Your task to perform on an android device: choose inbox layout in the gmail app Image 0: 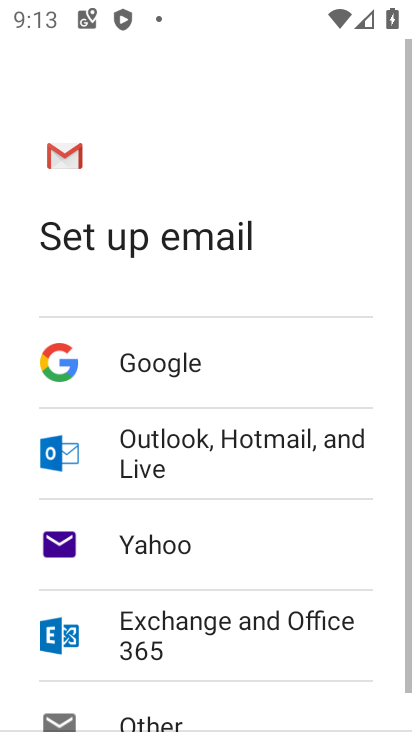
Step 0: press home button
Your task to perform on an android device: choose inbox layout in the gmail app Image 1: 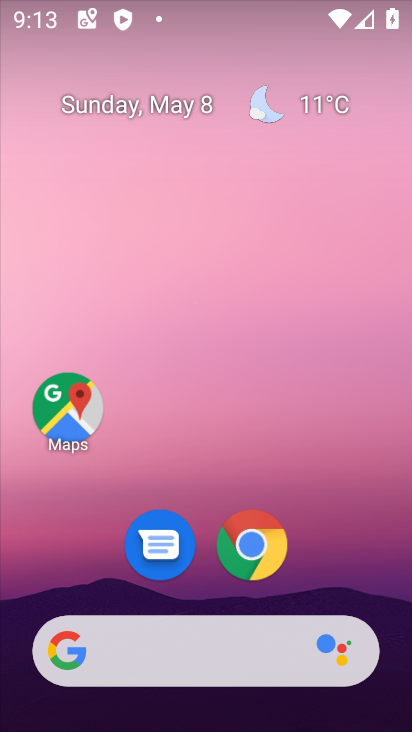
Step 1: drag from (208, 613) to (328, 64)
Your task to perform on an android device: choose inbox layout in the gmail app Image 2: 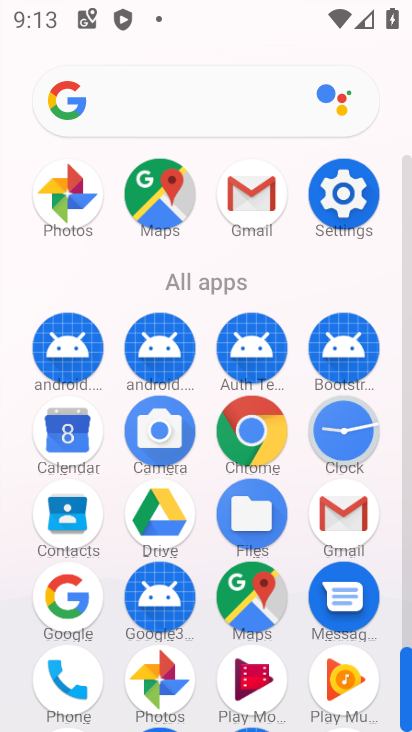
Step 2: click (346, 526)
Your task to perform on an android device: choose inbox layout in the gmail app Image 3: 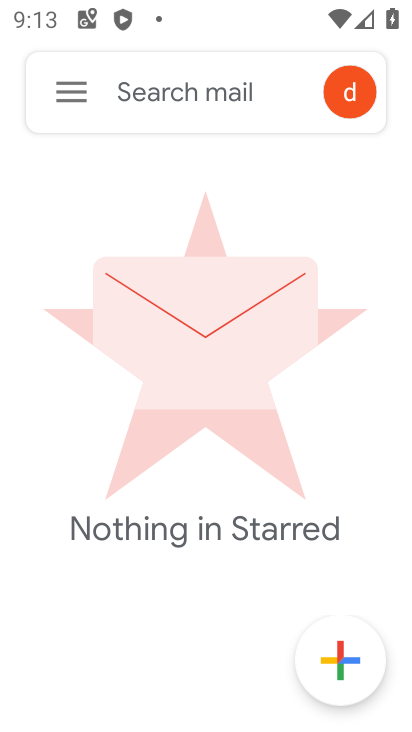
Step 3: click (72, 88)
Your task to perform on an android device: choose inbox layout in the gmail app Image 4: 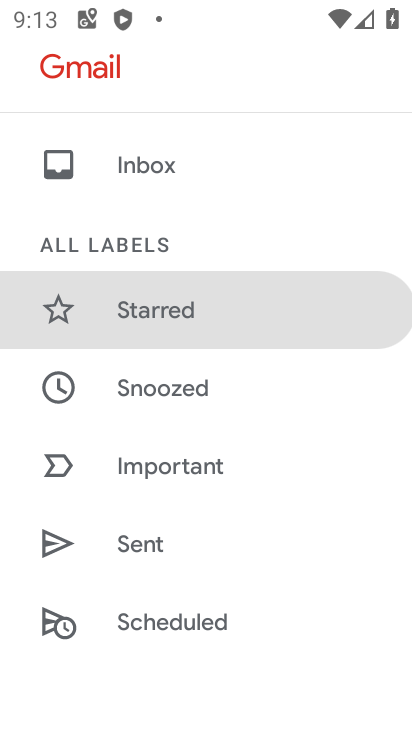
Step 4: drag from (178, 523) to (175, 599)
Your task to perform on an android device: choose inbox layout in the gmail app Image 5: 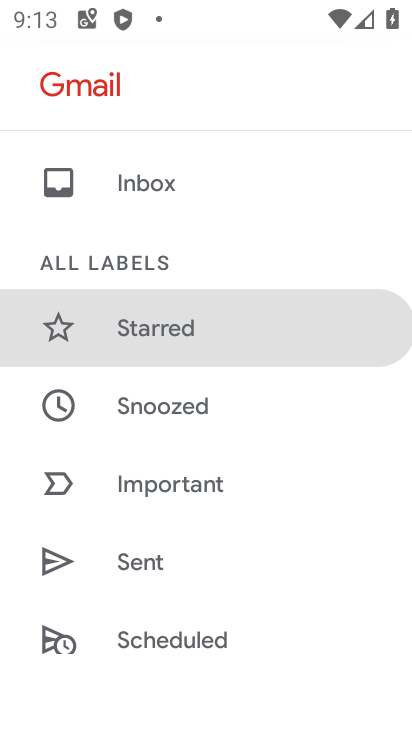
Step 5: click (141, 170)
Your task to perform on an android device: choose inbox layout in the gmail app Image 6: 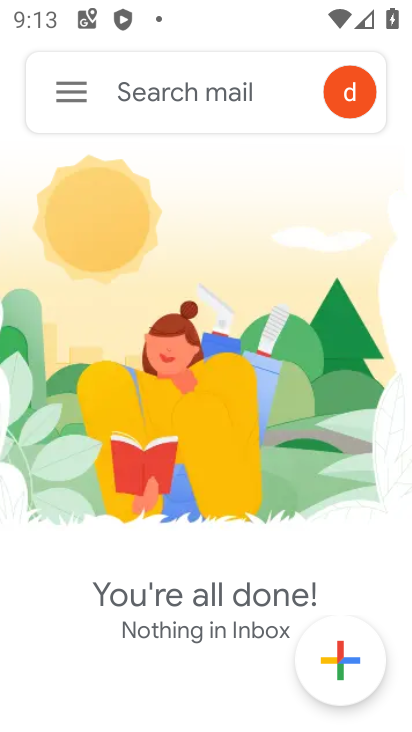
Step 6: task complete